Your task to perform on an android device: change timer sound Image 0: 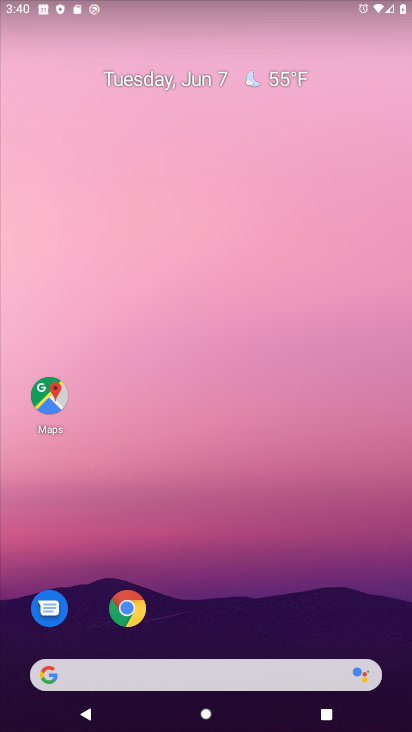
Step 0: drag from (219, 656) to (160, 40)
Your task to perform on an android device: change timer sound Image 1: 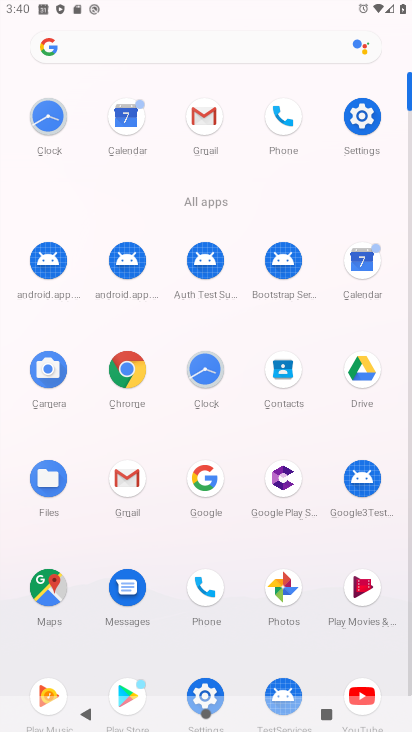
Step 1: click (218, 364)
Your task to perform on an android device: change timer sound Image 2: 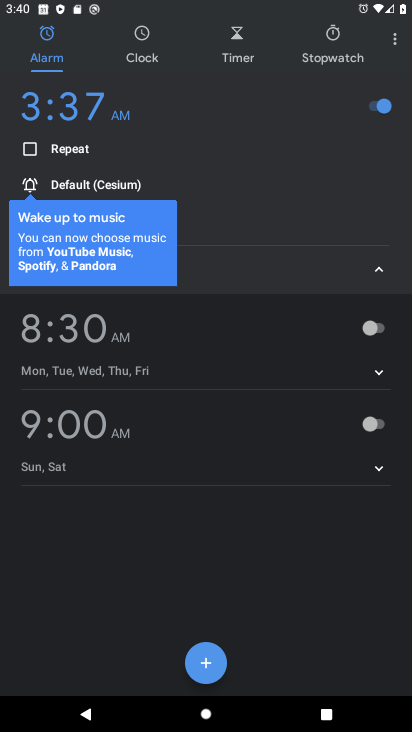
Step 2: click (393, 49)
Your task to perform on an android device: change timer sound Image 3: 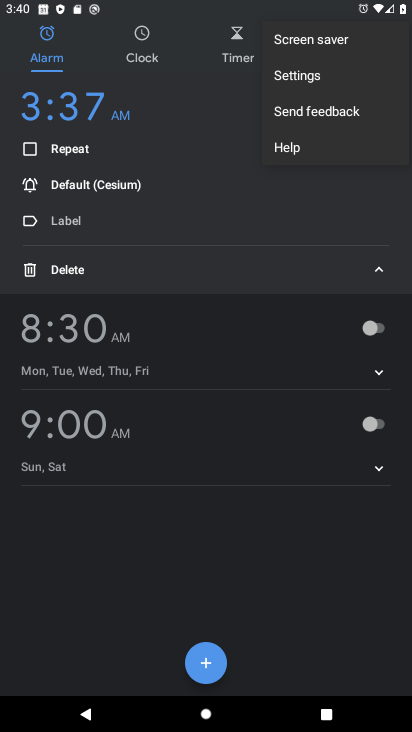
Step 3: click (315, 69)
Your task to perform on an android device: change timer sound Image 4: 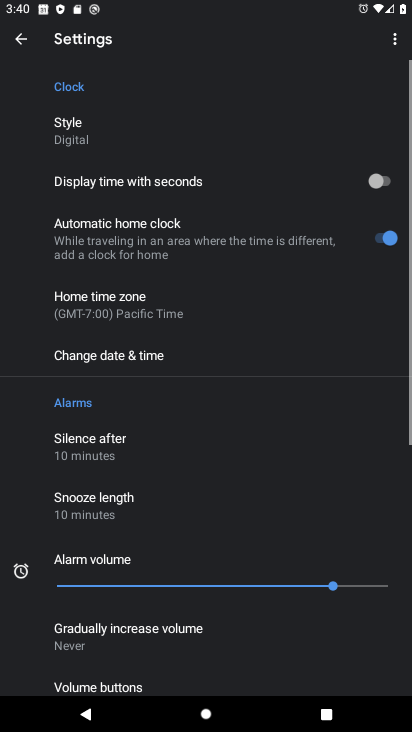
Step 4: drag from (137, 574) to (98, 157)
Your task to perform on an android device: change timer sound Image 5: 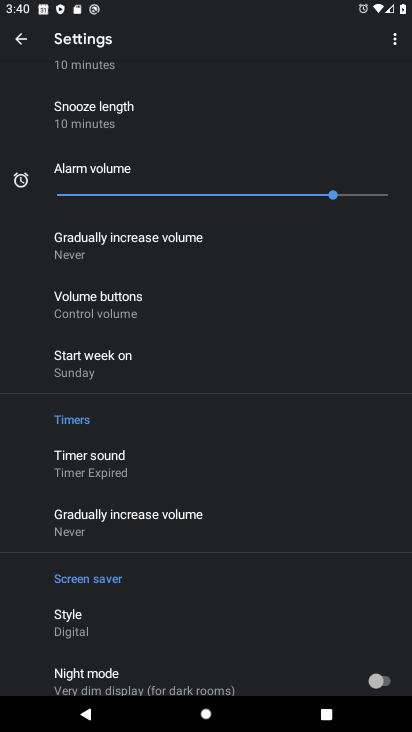
Step 5: click (123, 451)
Your task to perform on an android device: change timer sound Image 6: 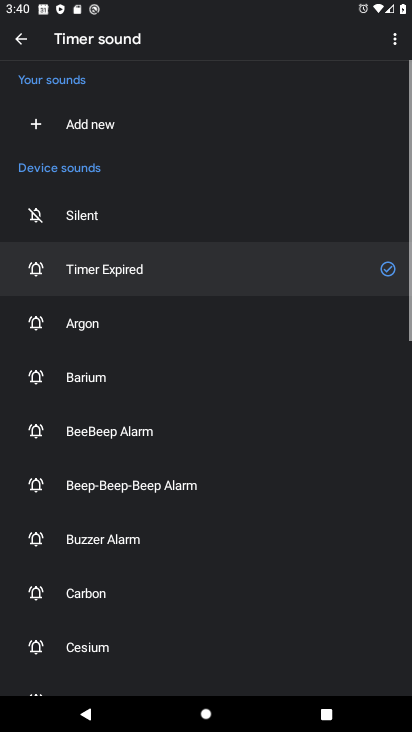
Step 6: click (100, 337)
Your task to perform on an android device: change timer sound Image 7: 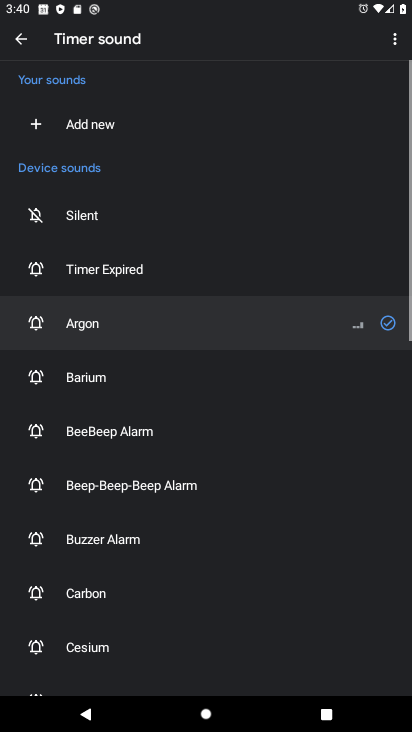
Step 7: task complete